Your task to perform on an android device: Go to settings Image 0: 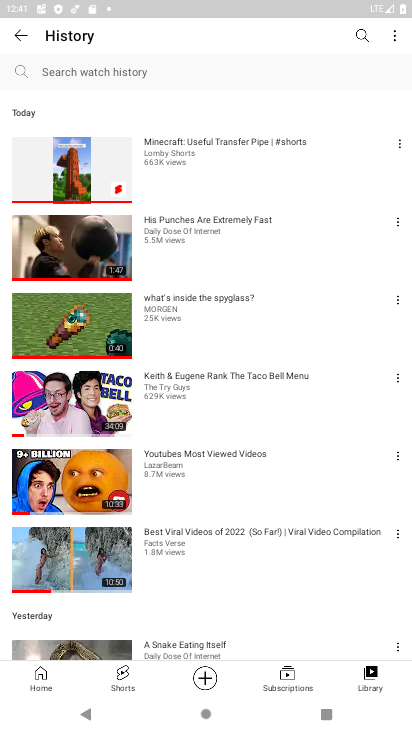
Step 0: press home button
Your task to perform on an android device: Go to settings Image 1: 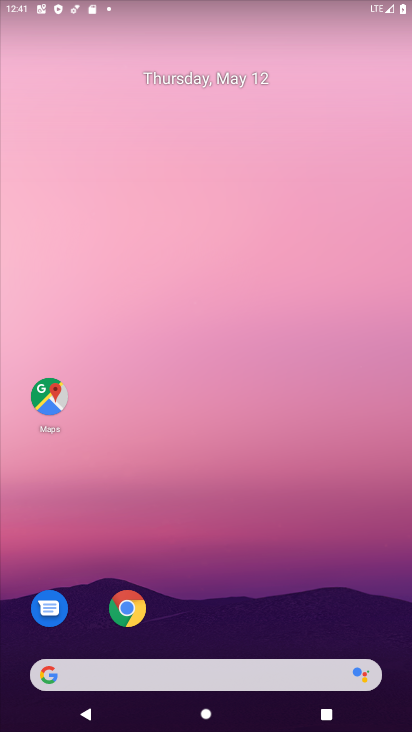
Step 1: drag from (269, 616) to (308, 8)
Your task to perform on an android device: Go to settings Image 2: 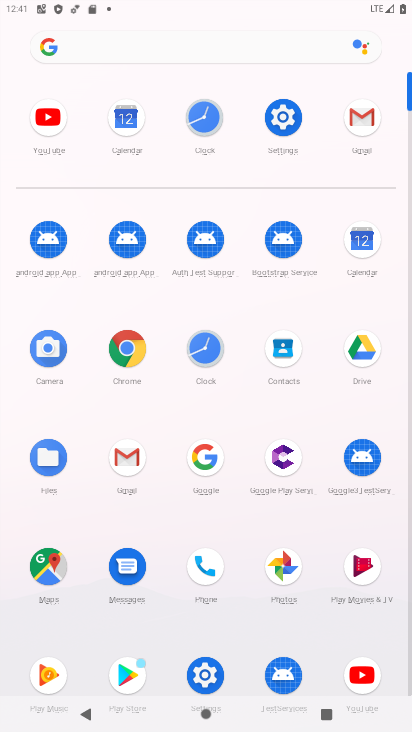
Step 2: click (281, 124)
Your task to perform on an android device: Go to settings Image 3: 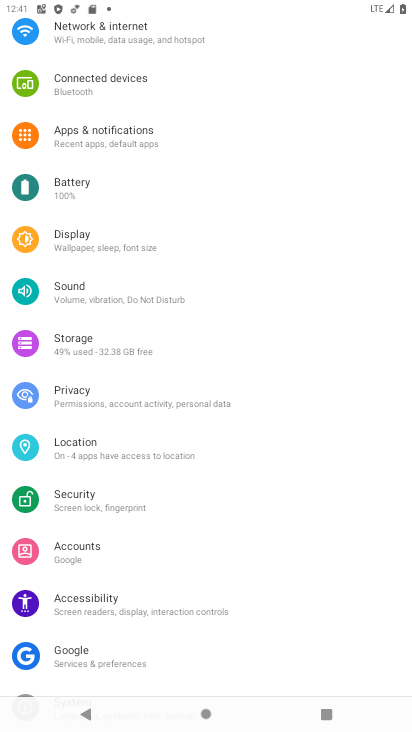
Step 3: task complete